Your task to perform on an android device: set default search engine in the chrome app Image 0: 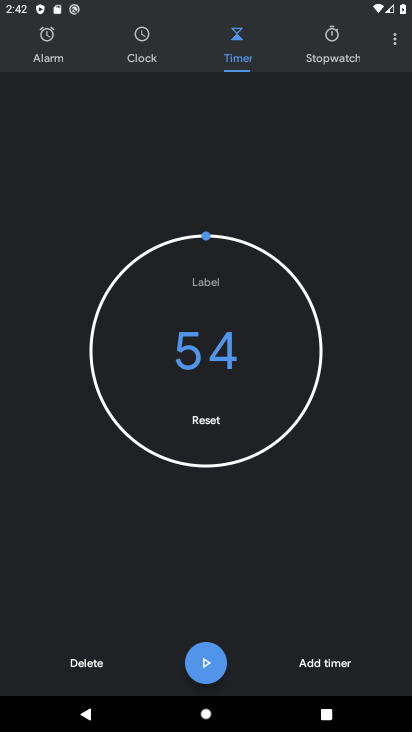
Step 0: press home button
Your task to perform on an android device: set default search engine in the chrome app Image 1: 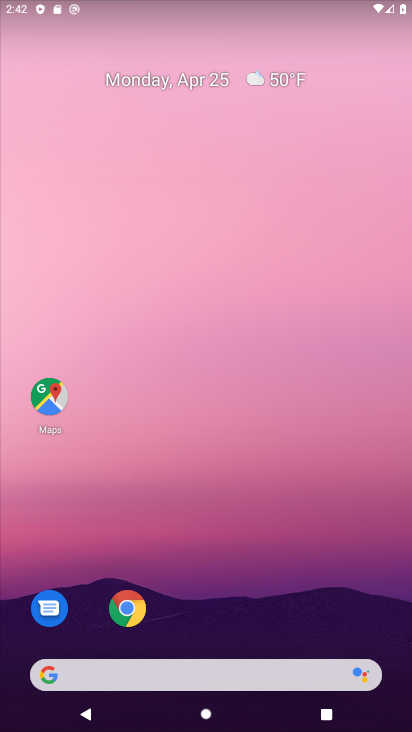
Step 1: click (134, 618)
Your task to perform on an android device: set default search engine in the chrome app Image 2: 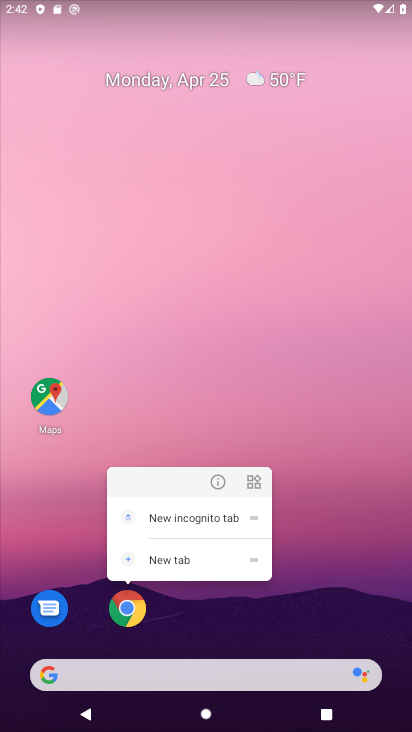
Step 2: click (130, 608)
Your task to perform on an android device: set default search engine in the chrome app Image 3: 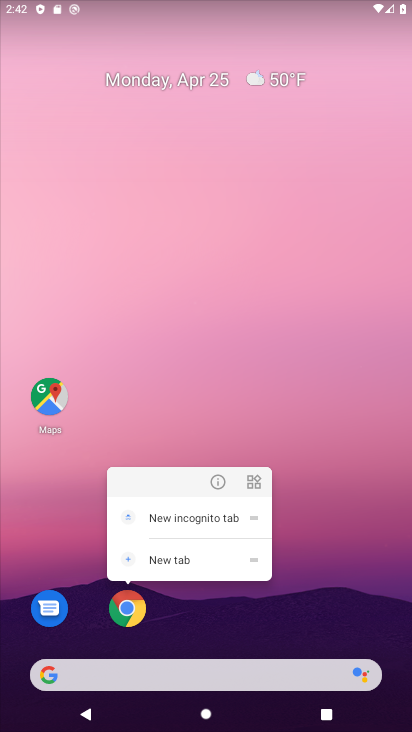
Step 3: click (130, 608)
Your task to perform on an android device: set default search engine in the chrome app Image 4: 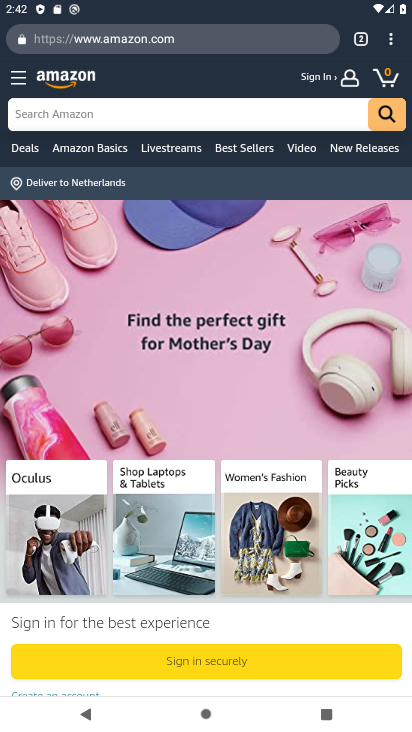
Step 4: click (392, 41)
Your task to perform on an android device: set default search engine in the chrome app Image 5: 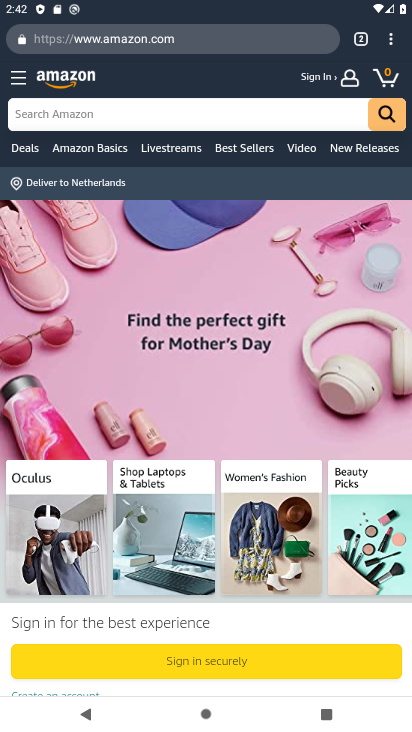
Step 5: drag from (397, 43) to (262, 514)
Your task to perform on an android device: set default search engine in the chrome app Image 6: 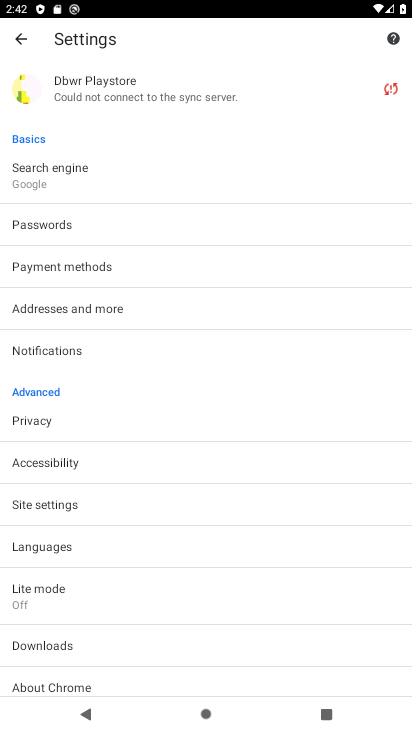
Step 6: click (85, 176)
Your task to perform on an android device: set default search engine in the chrome app Image 7: 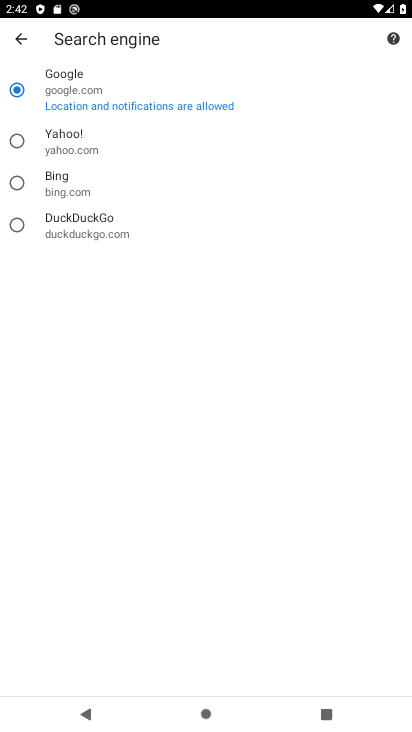
Step 7: click (68, 183)
Your task to perform on an android device: set default search engine in the chrome app Image 8: 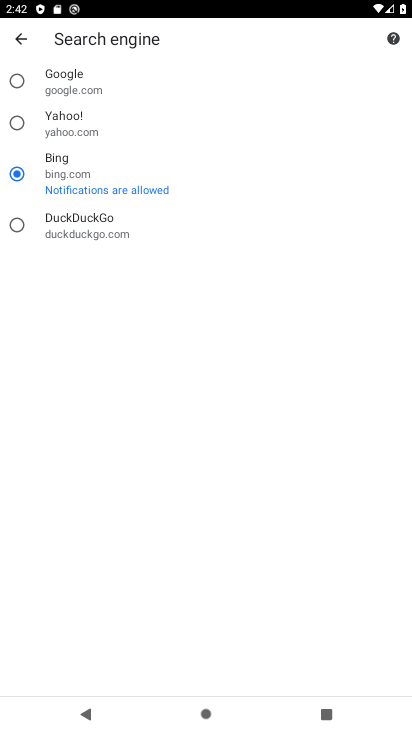
Step 8: task complete